Your task to perform on an android device: Search for sushi restaurants on Maps Image 0: 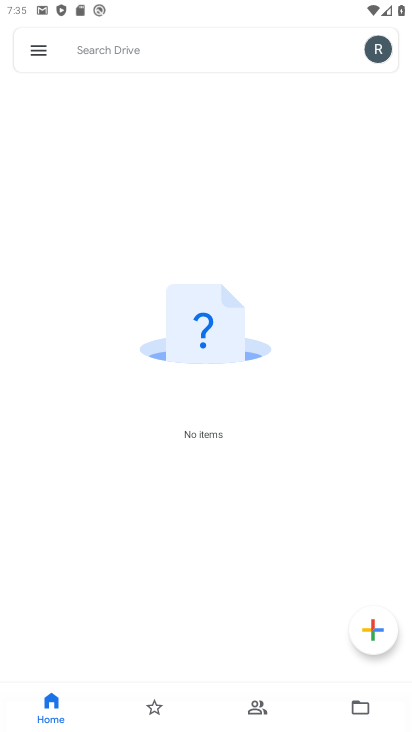
Step 0: press home button
Your task to perform on an android device: Search for sushi restaurants on Maps Image 1: 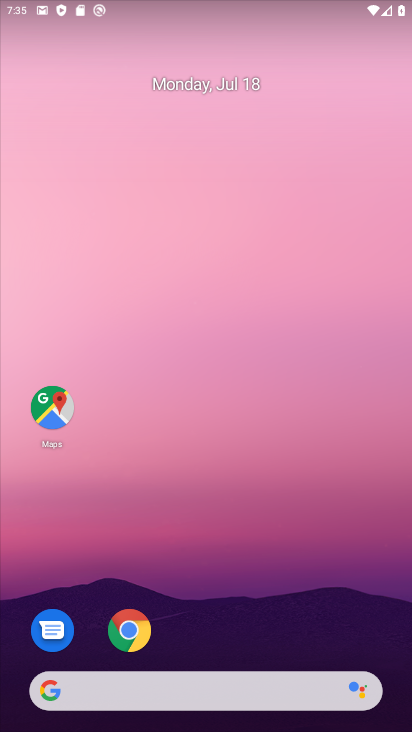
Step 1: drag from (169, 638) to (171, 165)
Your task to perform on an android device: Search for sushi restaurants on Maps Image 2: 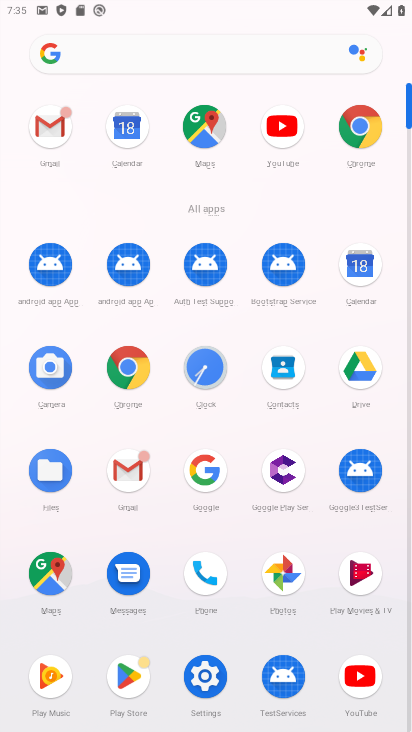
Step 2: click (42, 588)
Your task to perform on an android device: Search for sushi restaurants on Maps Image 3: 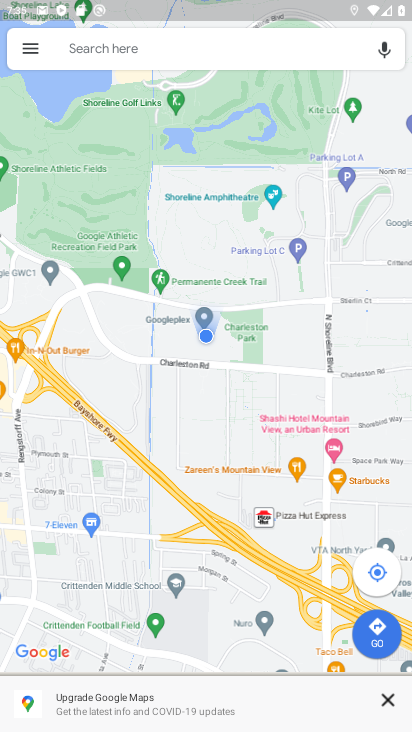
Step 3: click (297, 40)
Your task to perform on an android device: Search for sushi restaurants on Maps Image 4: 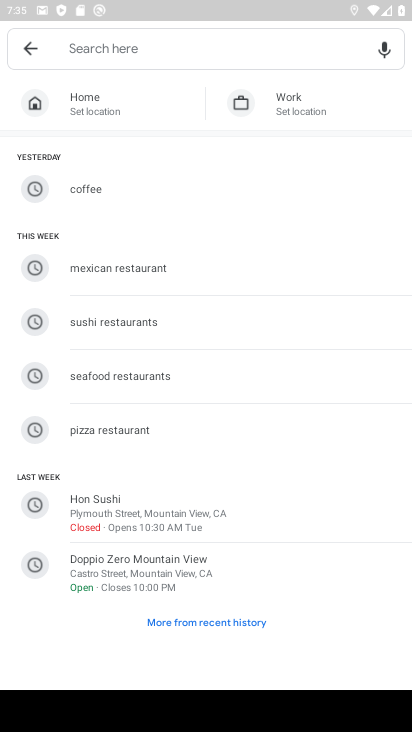
Step 4: click (144, 316)
Your task to perform on an android device: Search for sushi restaurants on Maps Image 5: 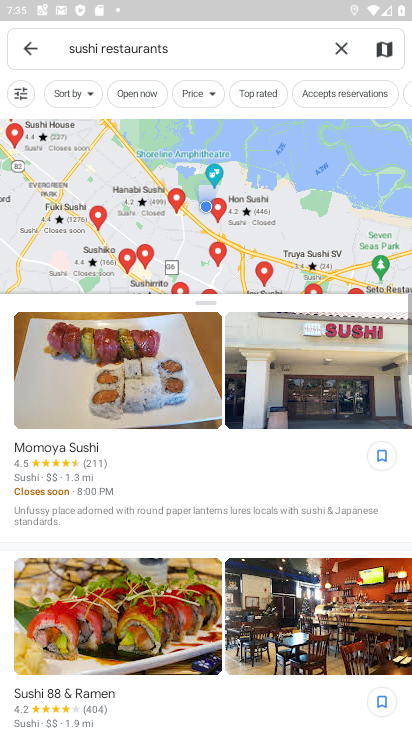
Step 5: task complete